Your task to perform on an android device: When is my next meeting? Image 0: 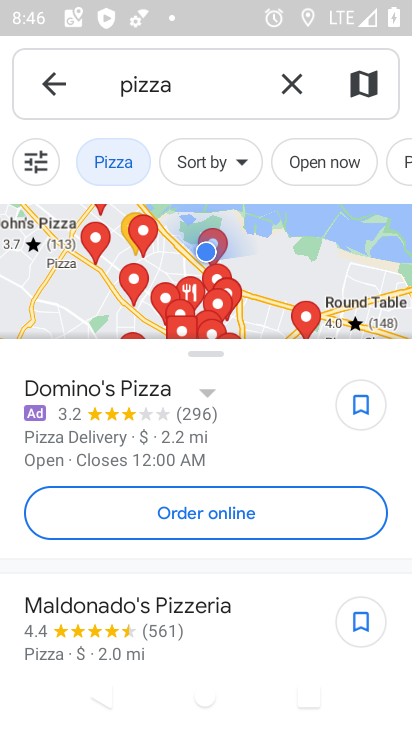
Step 0: press home button
Your task to perform on an android device: When is my next meeting? Image 1: 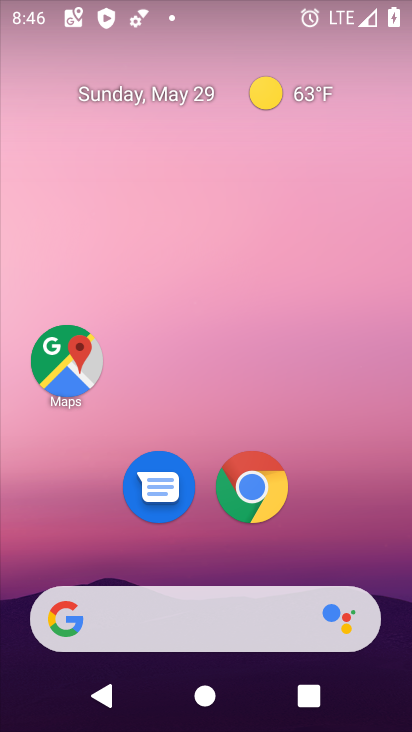
Step 1: drag from (191, 648) to (234, 87)
Your task to perform on an android device: When is my next meeting? Image 2: 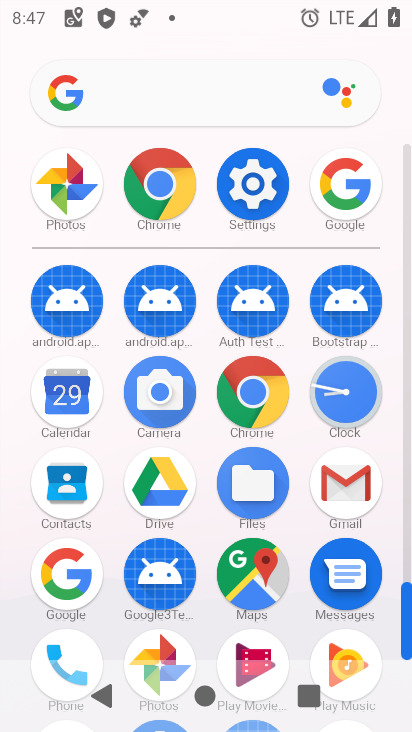
Step 2: click (256, 205)
Your task to perform on an android device: When is my next meeting? Image 3: 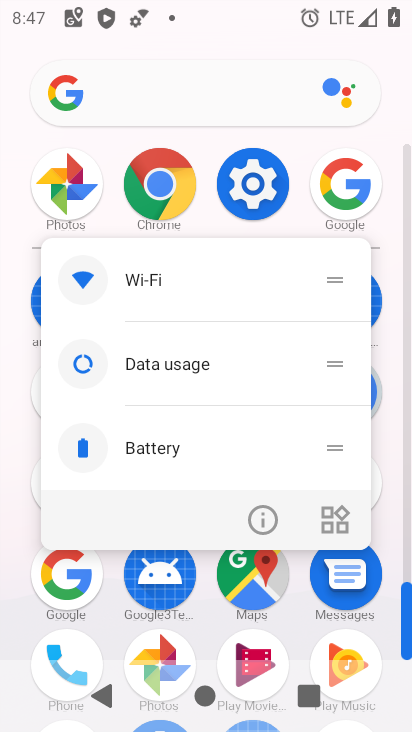
Step 3: click (393, 320)
Your task to perform on an android device: When is my next meeting? Image 4: 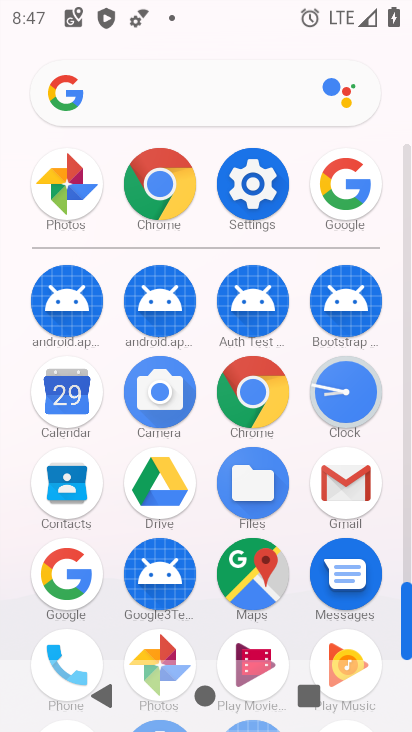
Step 4: click (73, 388)
Your task to perform on an android device: When is my next meeting? Image 5: 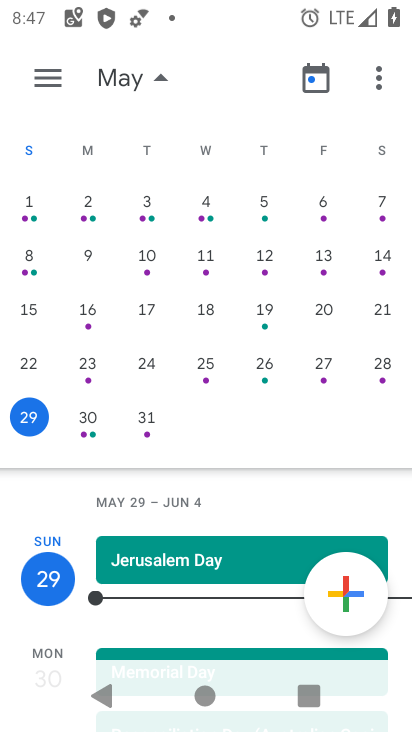
Step 5: click (55, 78)
Your task to perform on an android device: When is my next meeting? Image 6: 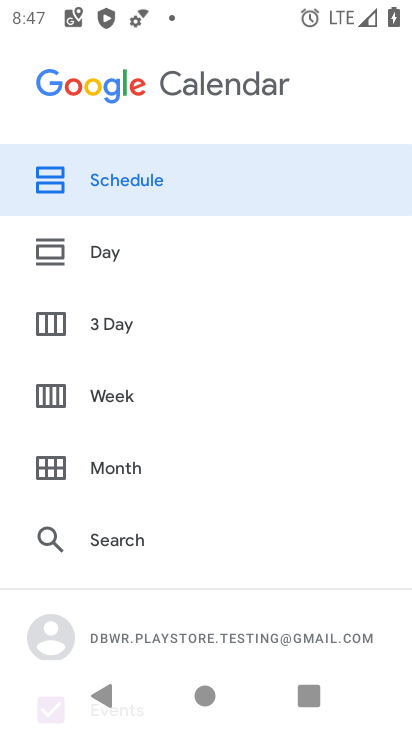
Step 6: drag from (115, 510) to (214, 104)
Your task to perform on an android device: When is my next meeting? Image 7: 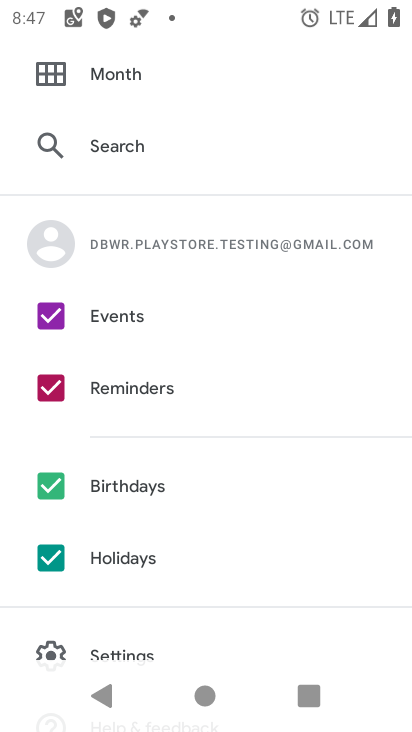
Step 7: click (79, 557)
Your task to perform on an android device: When is my next meeting? Image 8: 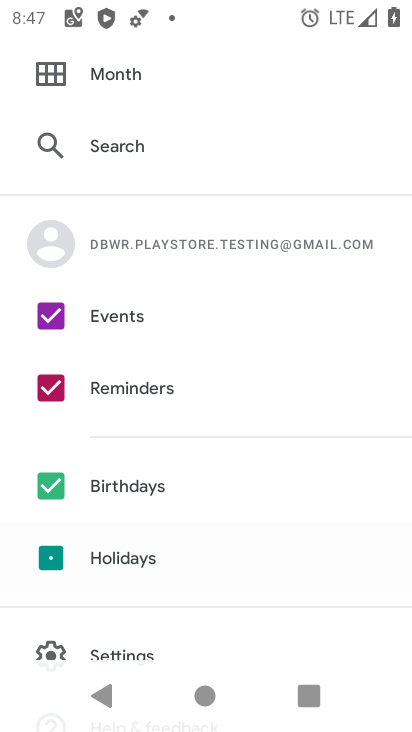
Step 8: click (66, 484)
Your task to perform on an android device: When is my next meeting? Image 9: 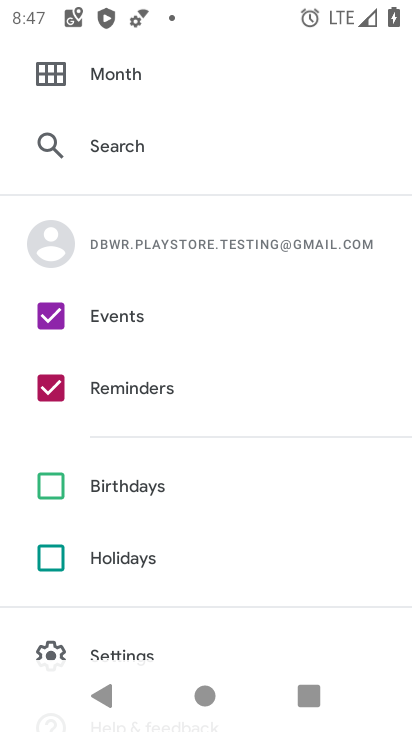
Step 9: task complete